Your task to perform on an android device: toggle location history Image 0: 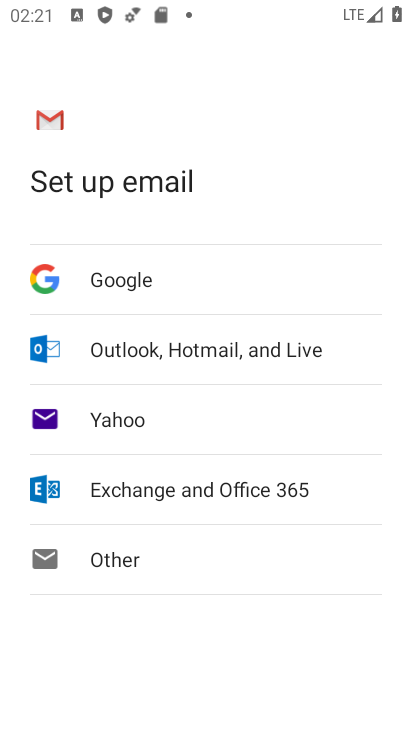
Step 0: press home button
Your task to perform on an android device: toggle location history Image 1: 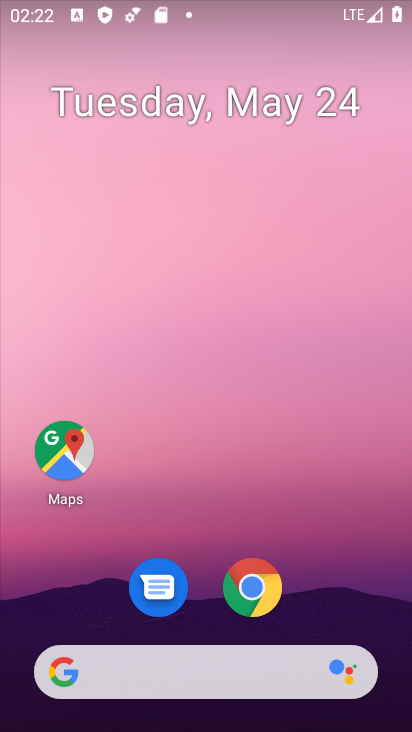
Step 1: click (45, 461)
Your task to perform on an android device: toggle location history Image 2: 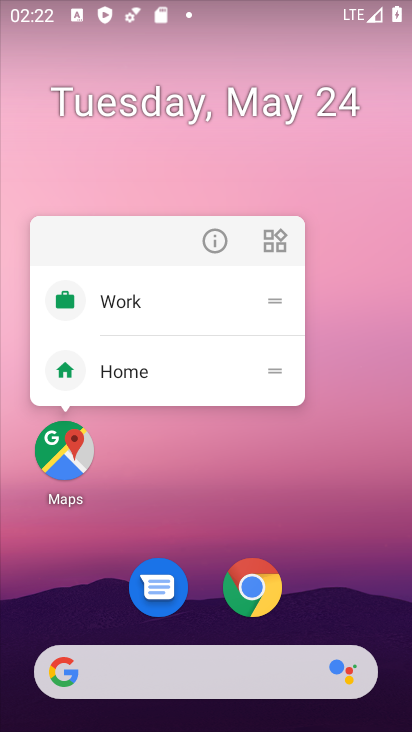
Step 2: click (73, 477)
Your task to perform on an android device: toggle location history Image 3: 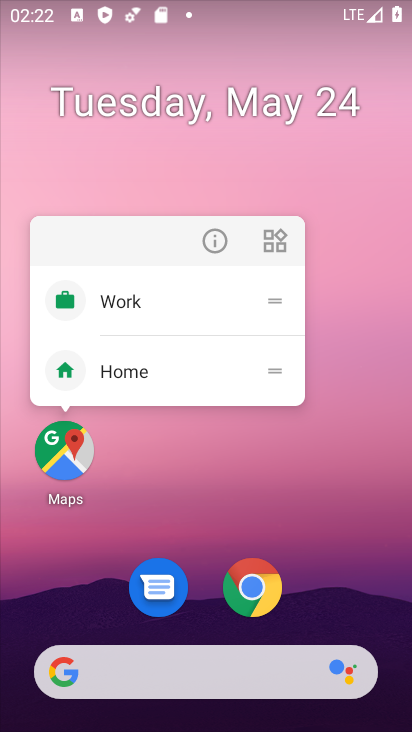
Step 3: click (75, 473)
Your task to perform on an android device: toggle location history Image 4: 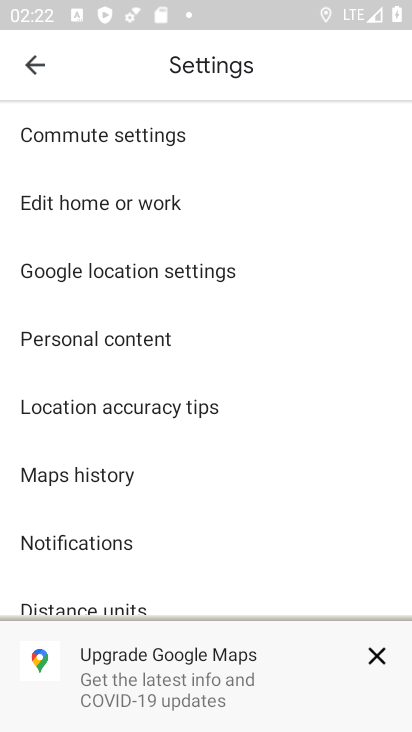
Step 4: click (373, 648)
Your task to perform on an android device: toggle location history Image 5: 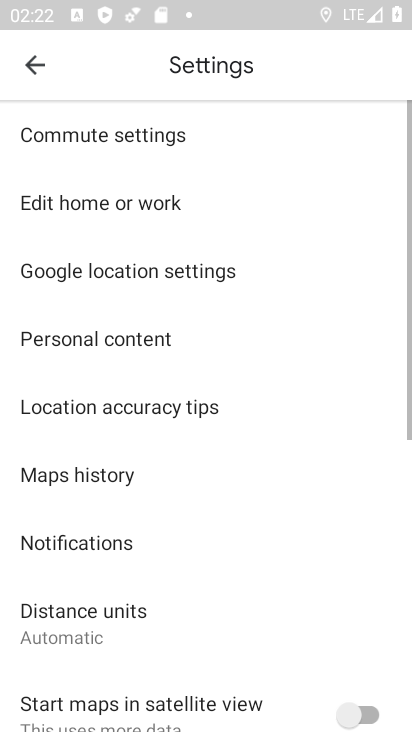
Step 5: click (33, 63)
Your task to perform on an android device: toggle location history Image 6: 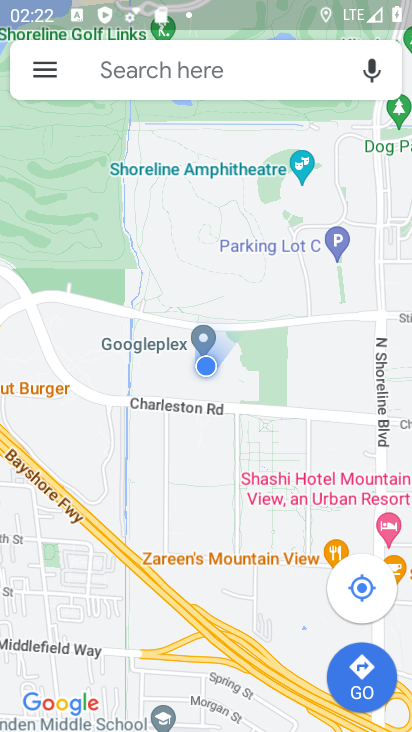
Step 6: click (43, 68)
Your task to perform on an android device: toggle location history Image 7: 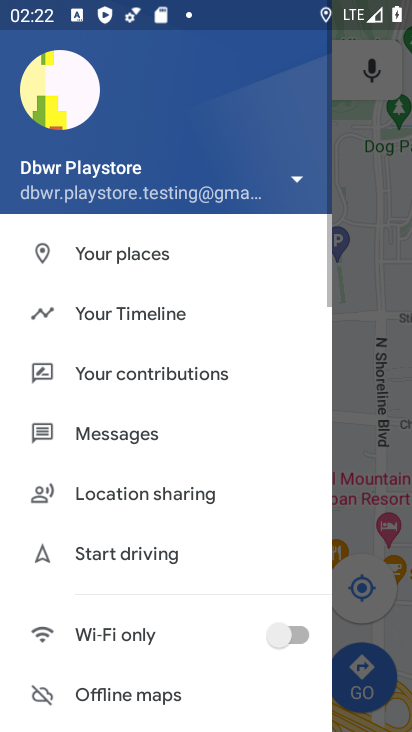
Step 7: click (135, 310)
Your task to perform on an android device: toggle location history Image 8: 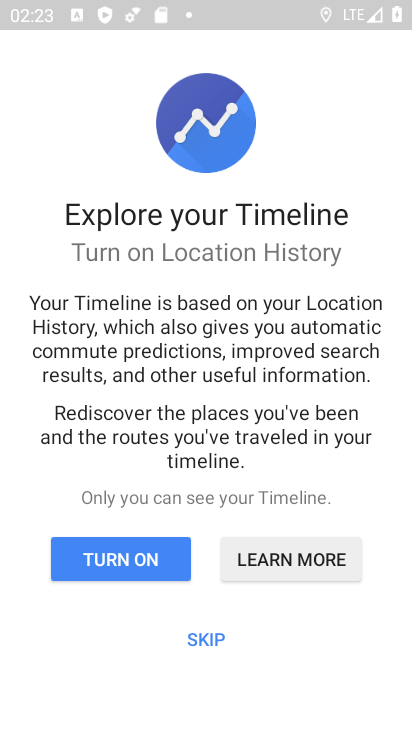
Step 8: click (214, 632)
Your task to perform on an android device: toggle location history Image 9: 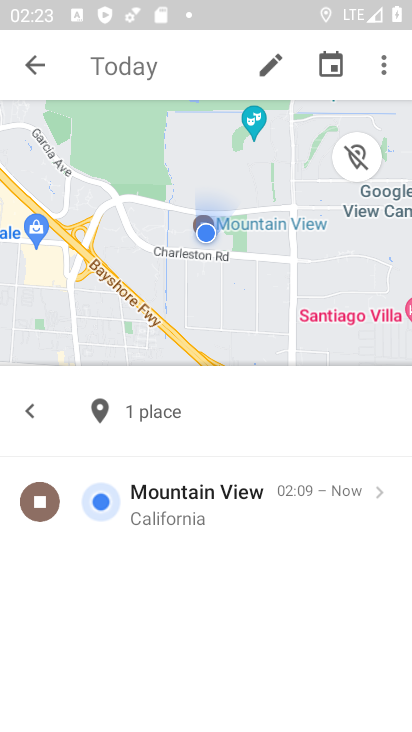
Step 9: click (383, 60)
Your task to perform on an android device: toggle location history Image 10: 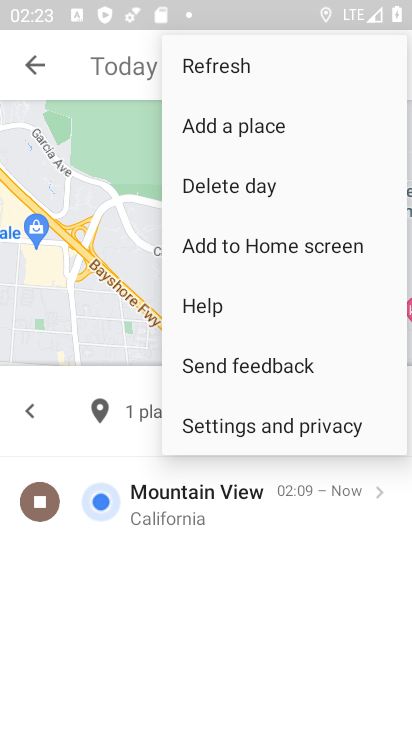
Step 10: click (279, 431)
Your task to perform on an android device: toggle location history Image 11: 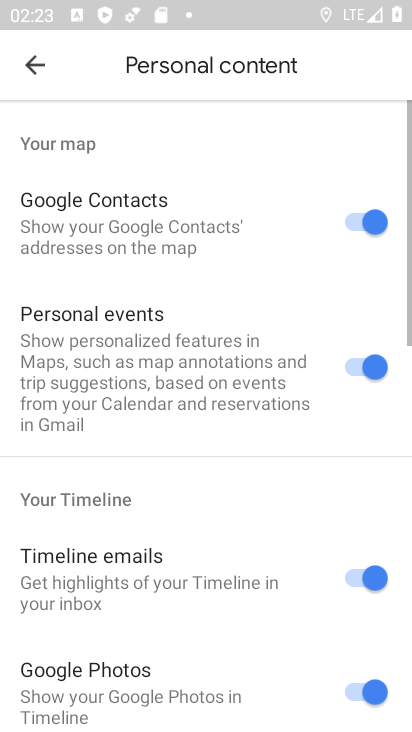
Step 11: drag from (273, 663) to (236, 166)
Your task to perform on an android device: toggle location history Image 12: 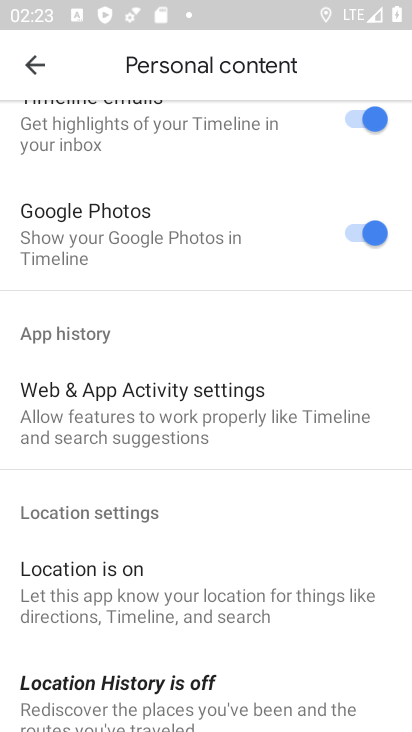
Step 12: drag from (252, 647) to (272, 370)
Your task to perform on an android device: toggle location history Image 13: 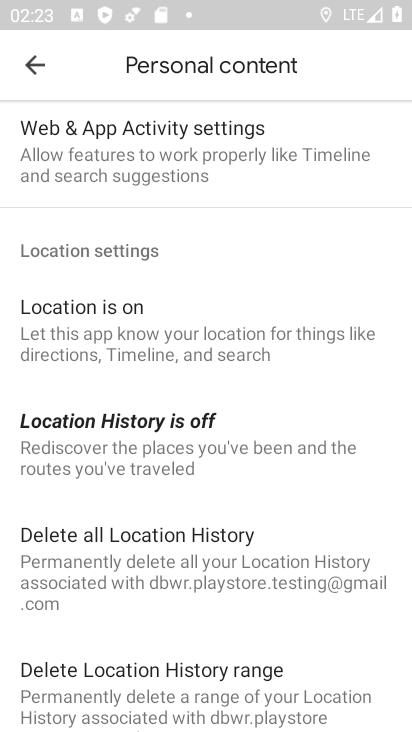
Step 13: click (174, 422)
Your task to perform on an android device: toggle location history Image 14: 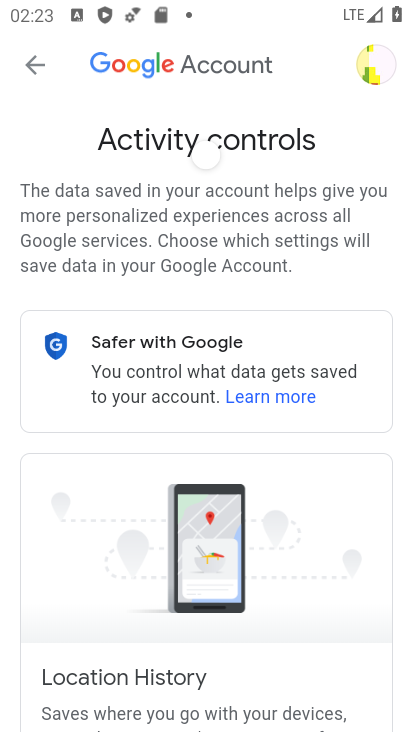
Step 14: drag from (238, 588) to (241, 130)
Your task to perform on an android device: toggle location history Image 15: 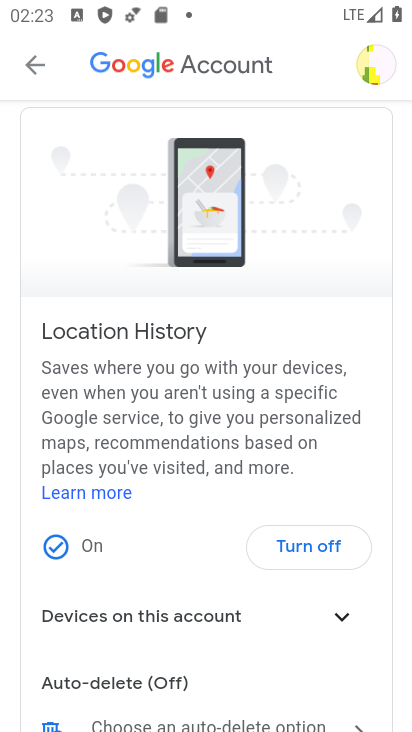
Step 15: click (296, 548)
Your task to perform on an android device: toggle location history Image 16: 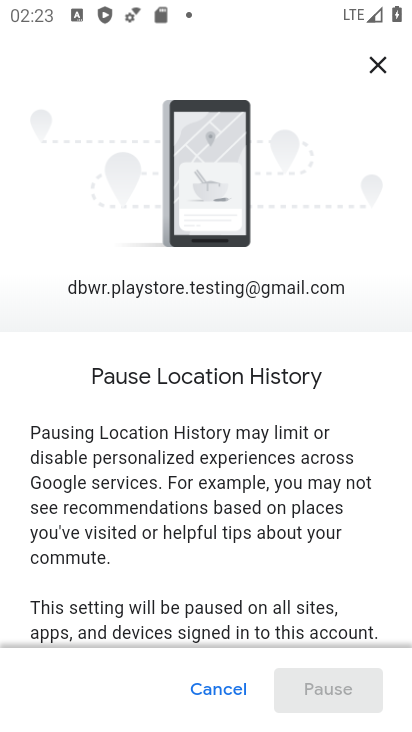
Step 16: drag from (238, 524) to (215, 43)
Your task to perform on an android device: toggle location history Image 17: 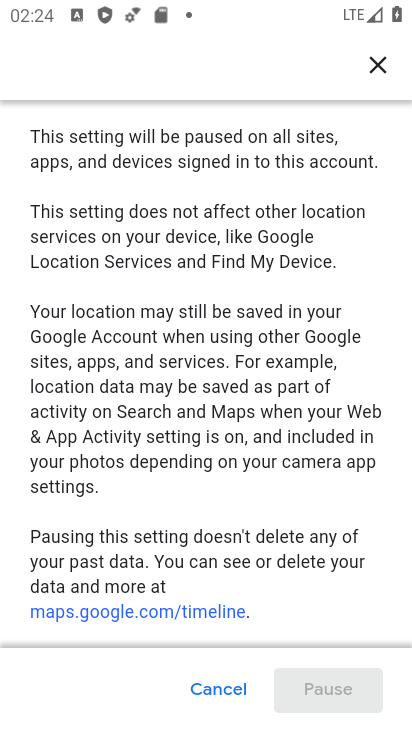
Step 17: drag from (205, 580) to (224, 124)
Your task to perform on an android device: toggle location history Image 18: 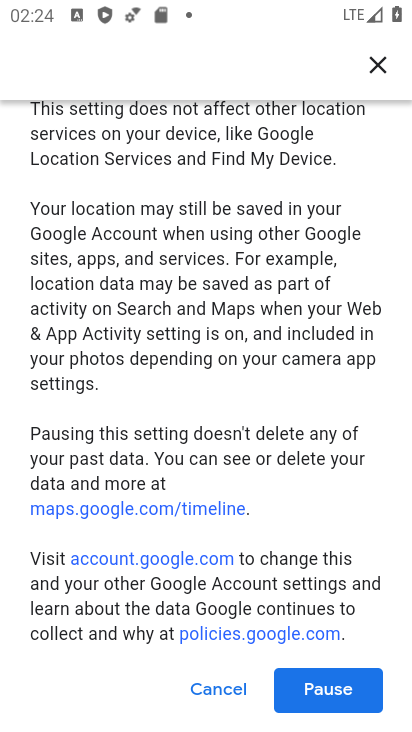
Step 18: click (311, 691)
Your task to perform on an android device: toggle location history Image 19: 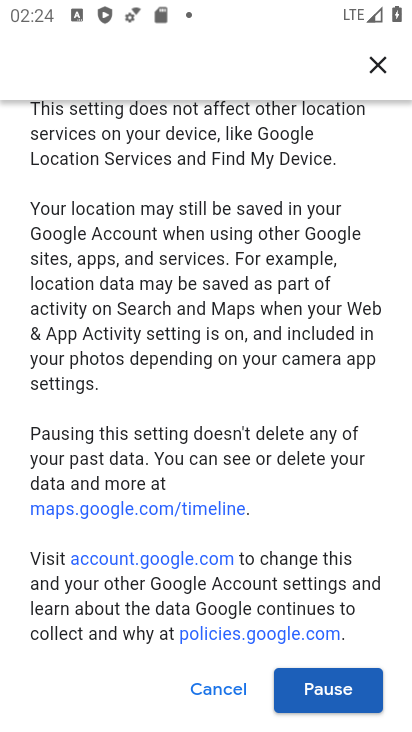
Step 19: click (340, 684)
Your task to perform on an android device: toggle location history Image 20: 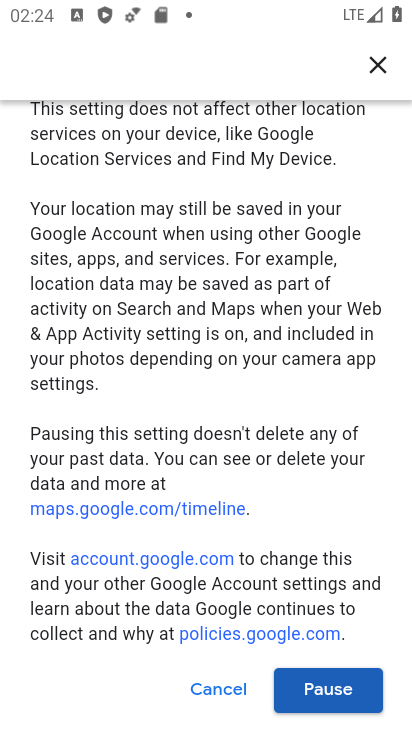
Step 20: click (328, 705)
Your task to perform on an android device: toggle location history Image 21: 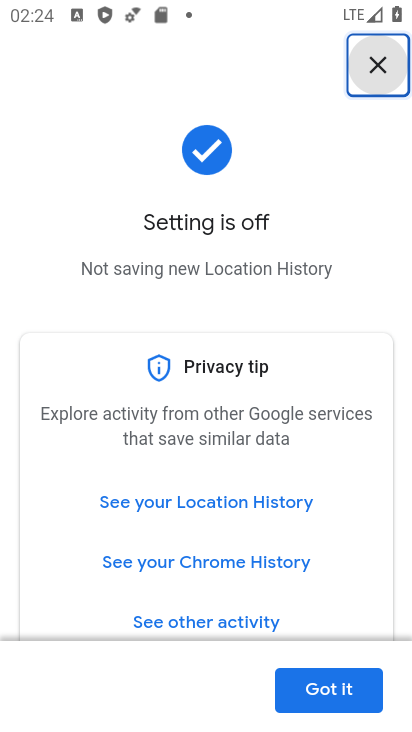
Step 21: click (329, 689)
Your task to perform on an android device: toggle location history Image 22: 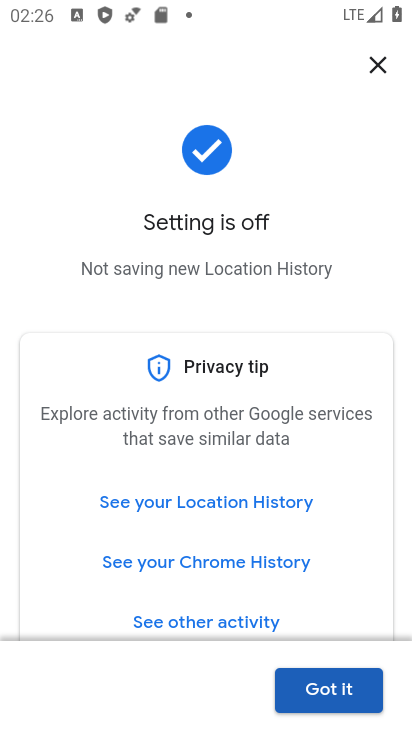
Step 22: click (314, 689)
Your task to perform on an android device: toggle location history Image 23: 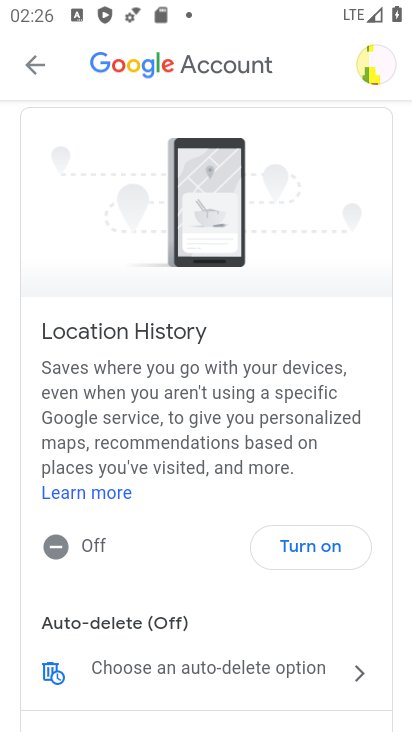
Step 23: task complete